Your task to perform on an android device: Open CNN.com Image 0: 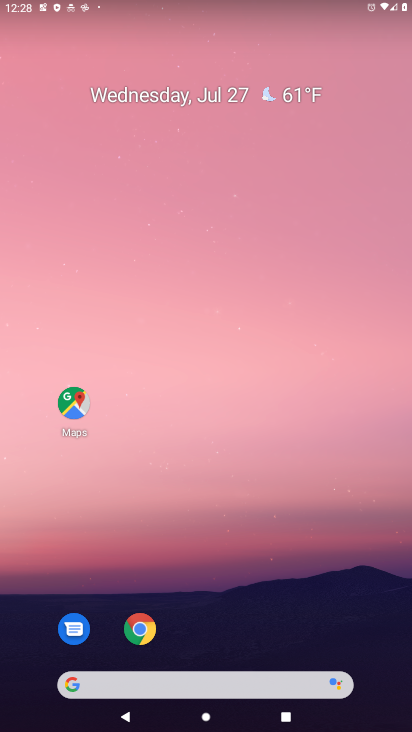
Step 0: click (263, 686)
Your task to perform on an android device: Open CNN.com Image 1: 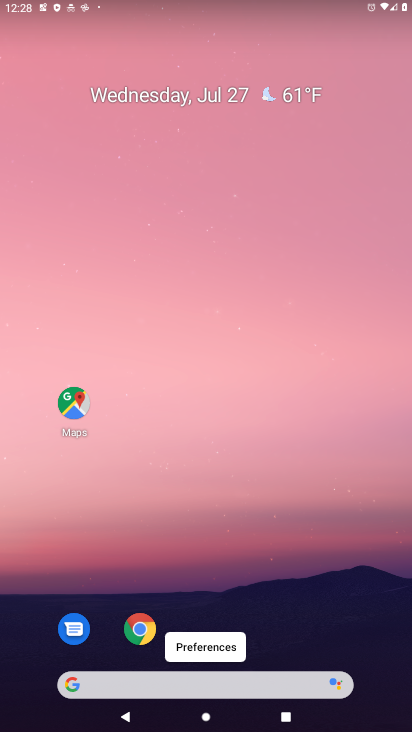
Step 1: click (263, 686)
Your task to perform on an android device: Open CNN.com Image 2: 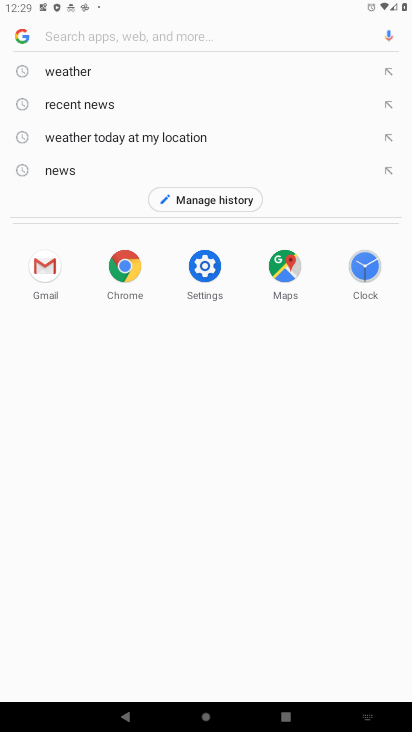
Step 2: type "cnn.com"
Your task to perform on an android device: Open CNN.com Image 3: 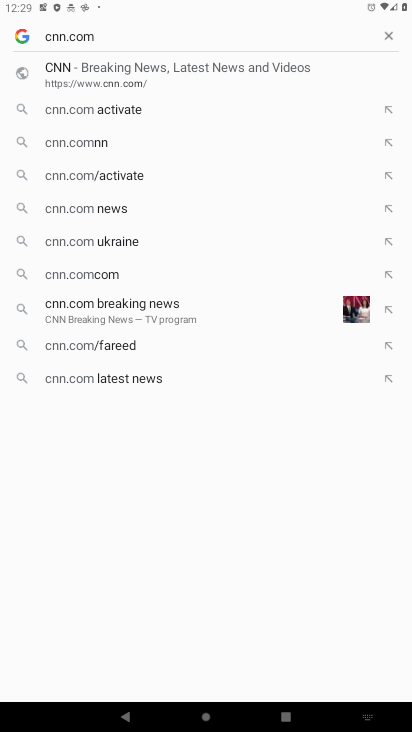
Step 3: click (133, 70)
Your task to perform on an android device: Open CNN.com Image 4: 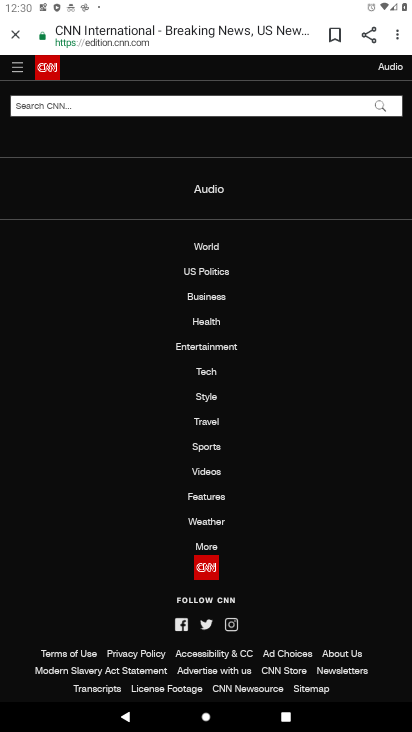
Step 4: task complete